Your task to perform on an android device: make emails show in primary in the gmail app Image 0: 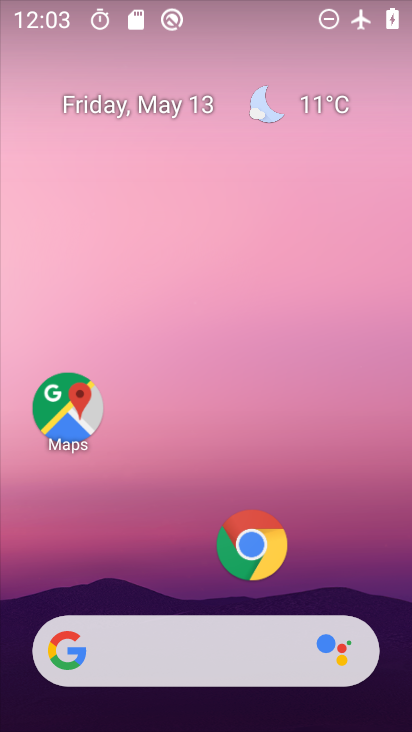
Step 0: press home button
Your task to perform on an android device: make emails show in primary in the gmail app Image 1: 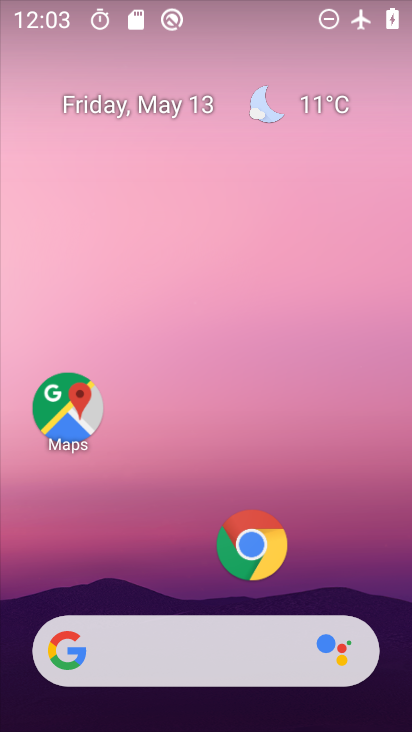
Step 1: drag from (193, 589) to (195, 54)
Your task to perform on an android device: make emails show in primary in the gmail app Image 2: 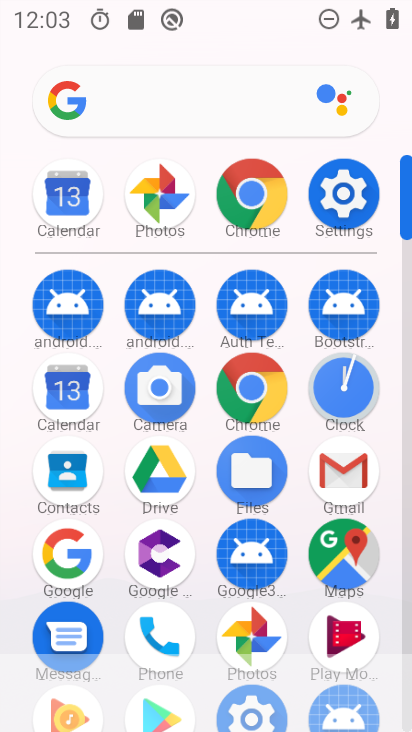
Step 2: click (344, 465)
Your task to perform on an android device: make emails show in primary in the gmail app Image 3: 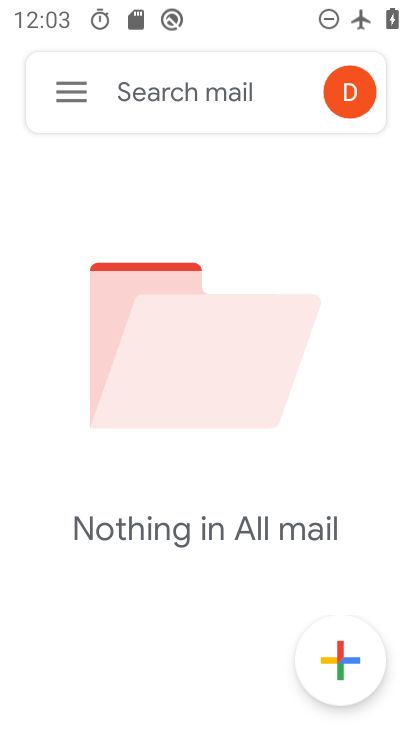
Step 3: click (75, 83)
Your task to perform on an android device: make emails show in primary in the gmail app Image 4: 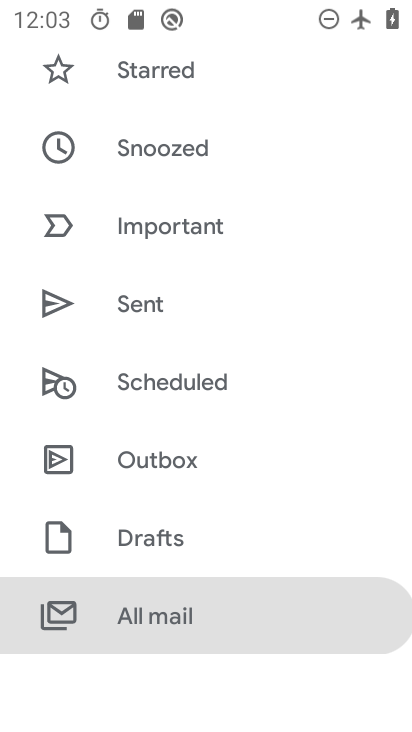
Step 4: drag from (174, 591) to (177, 36)
Your task to perform on an android device: make emails show in primary in the gmail app Image 5: 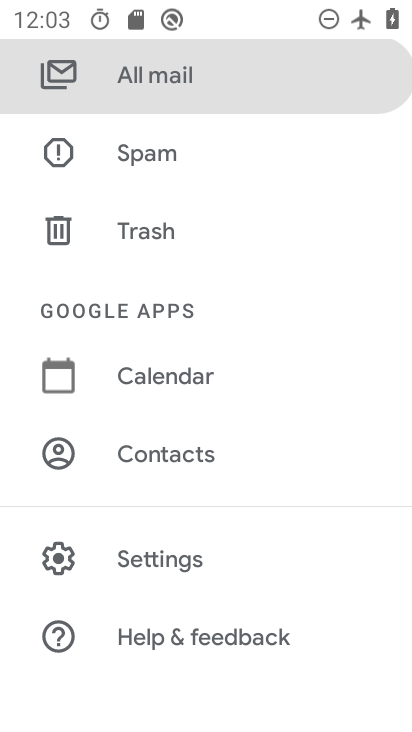
Step 5: click (209, 553)
Your task to perform on an android device: make emails show in primary in the gmail app Image 6: 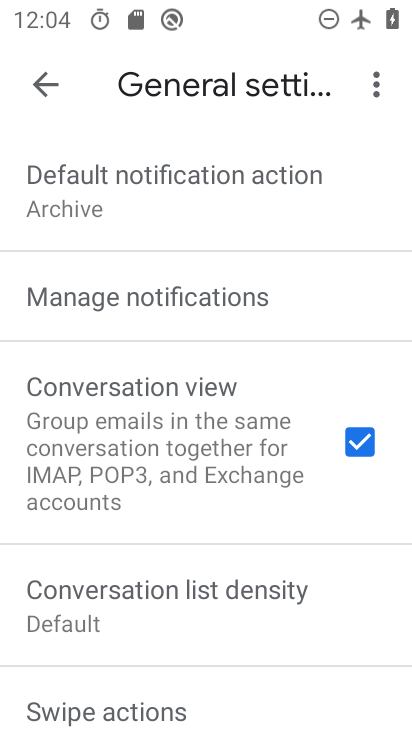
Step 6: click (48, 89)
Your task to perform on an android device: make emails show in primary in the gmail app Image 7: 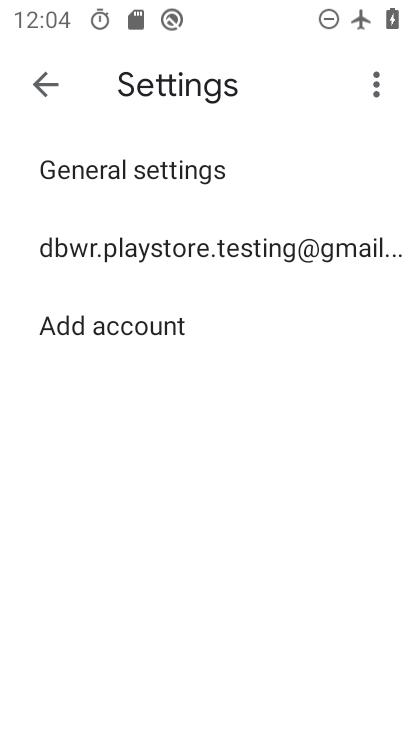
Step 7: click (236, 249)
Your task to perform on an android device: make emails show in primary in the gmail app Image 8: 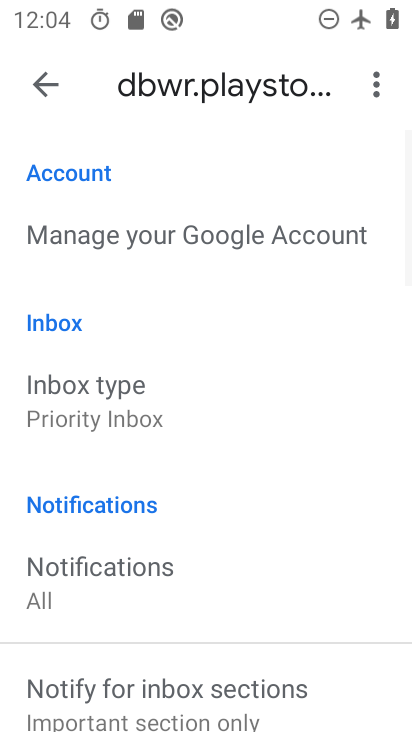
Step 8: click (155, 397)
Your task to perform on an android device: make emails show in primary in the gmail app Image 9: 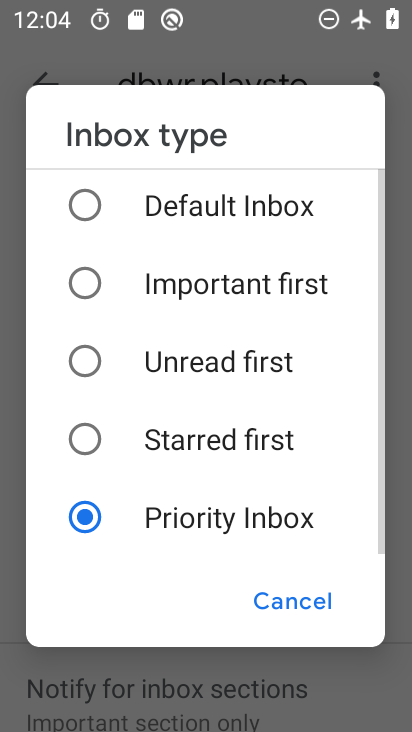
Step 9: click (79, 203)
Your task to perform on an android device: make emails show in primary in the gmail app Image 10: 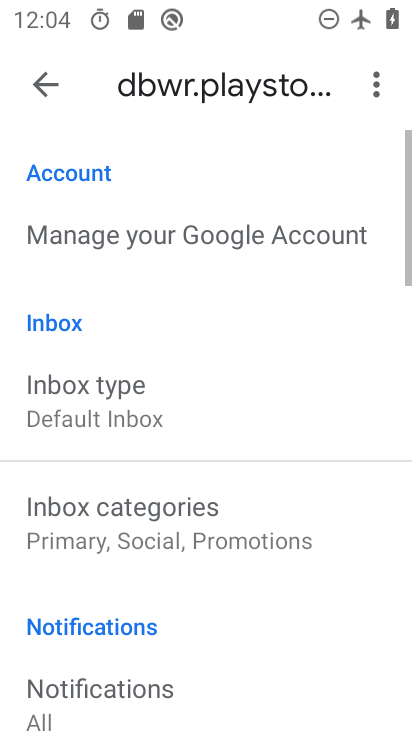
Step 10: task complete